Your task to perform on an android device: What's on my calendar today? Image 0: 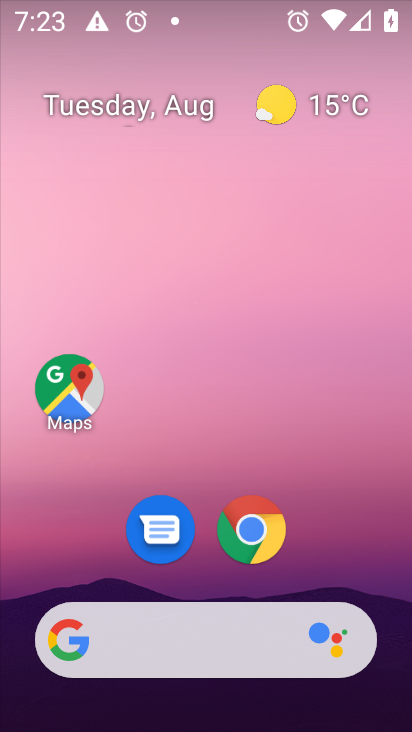
Step 0: press home button
Your task to perform on an android device: What's on my calendar today? Image 1: 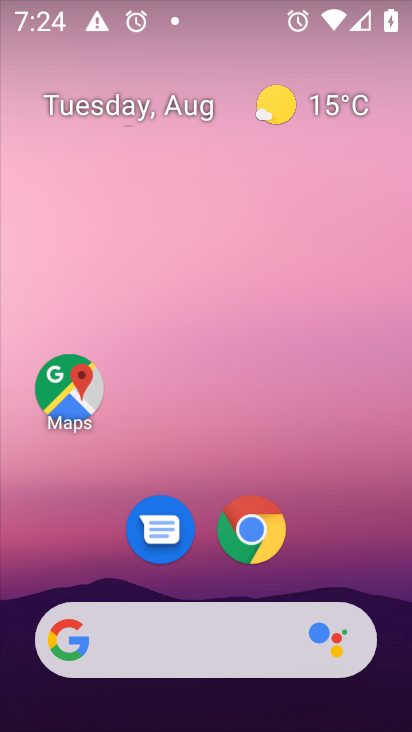
Step 1: drag from (212, 552) to (221, 86)
Your task to perform on an android device: What's on my calendar today? Image 2: 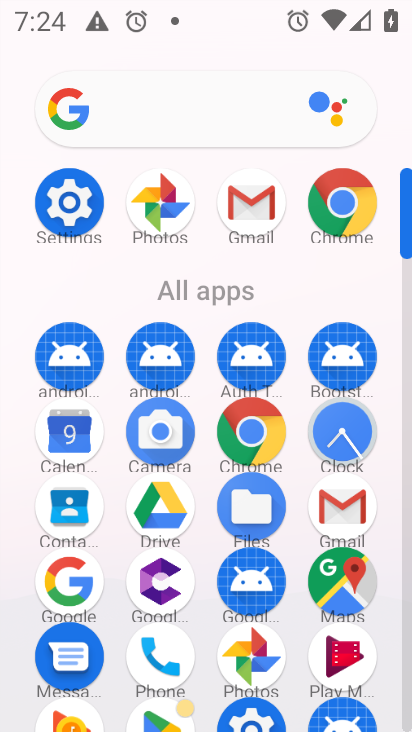
Step 2: click (66, 443)
Your task to perform on an android device: What's on my calendar today? Image 3: 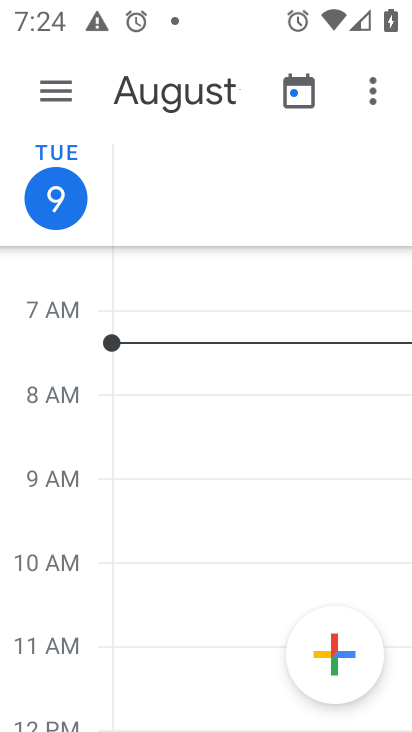
Step 3: click (241, 90)
Your task to perform on an android device: What's on my calendar today? Image 4: 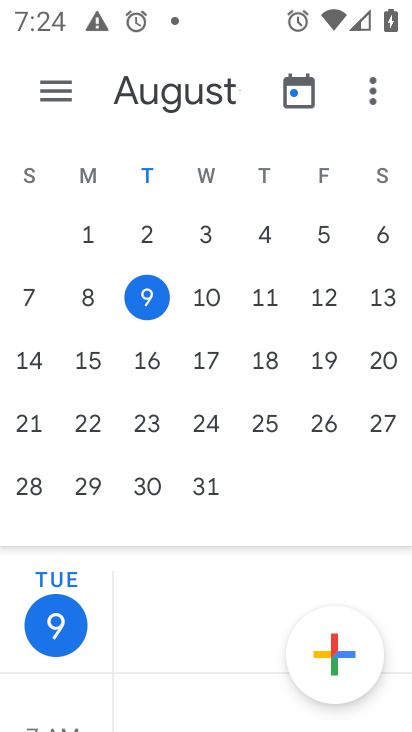
Step 4: click (155, 303)
Your task to perform on an android device: What's on my calendar today? Image 5: 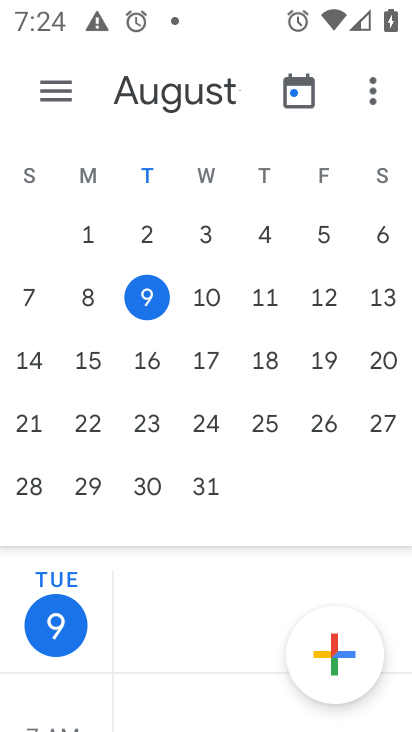
Step 5: task complete